Your task to perform on an android device: What's the weather going to be tomorrow? Image 0: 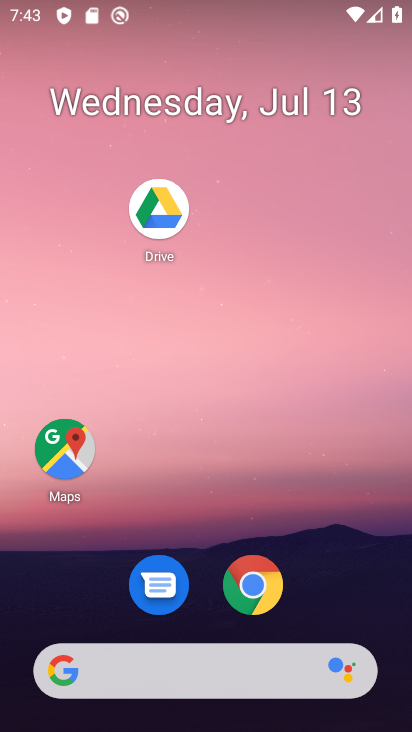
Step 0: click (157, 666)
Your task to perform on an android device: What's the weather going to be tomorrow? Image 1: 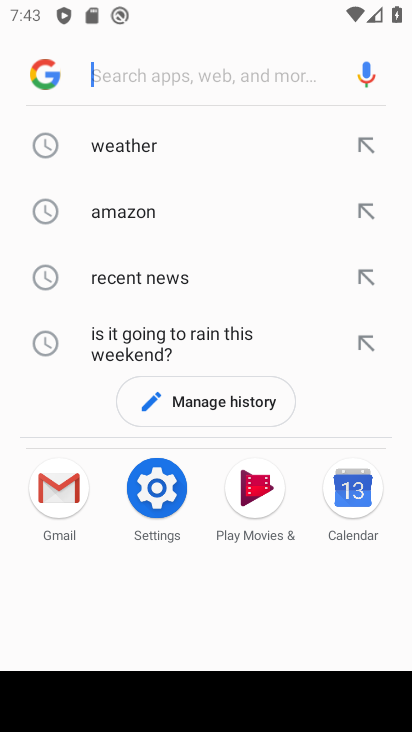
Step 1: click (125, 152)
Your task to perform on an android device: What's the weather going to be tomorrow? Image 2: 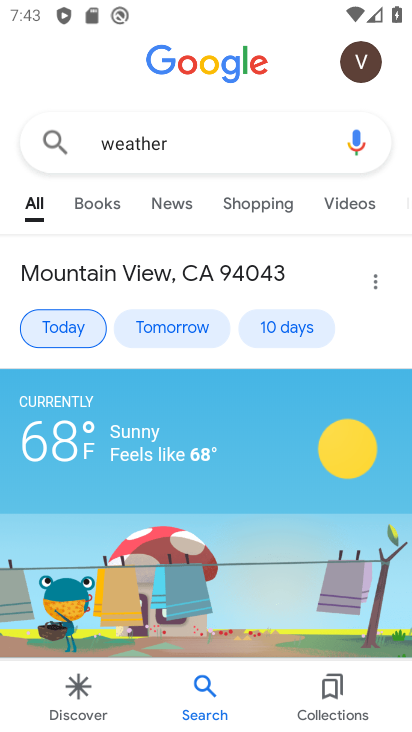
Step 2: click (157, 324)
Your task to perform on an android device: What's the weather going to be tomorrow? Image 3: 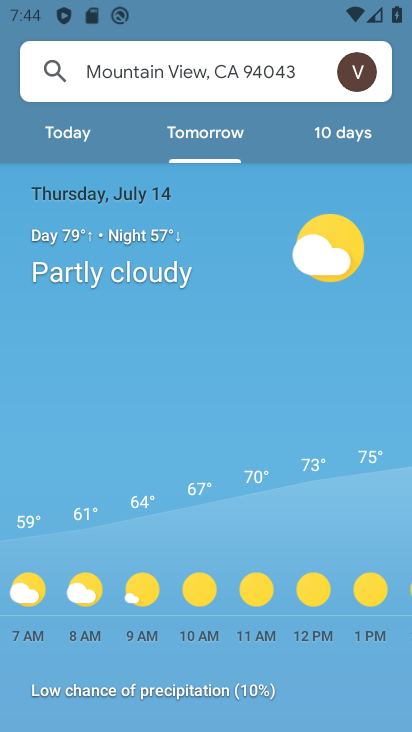
Step 3: task complete